Your task to perform on an android device: delete browsing data in the chrome app Image 0: 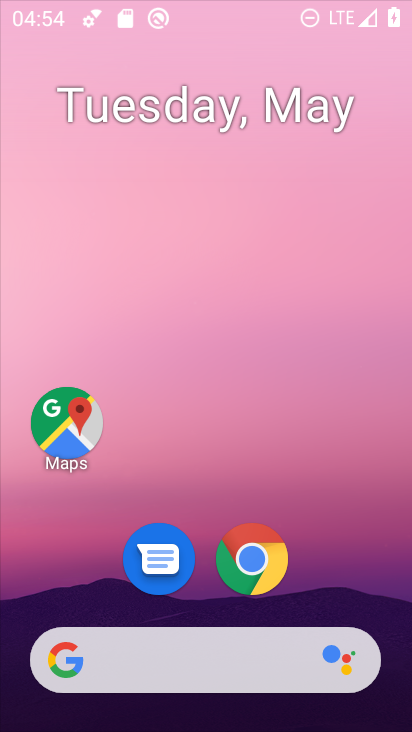
Step 0: drag from (216, 474) to (223, 137)
Your task to perform on an android device: delete browsing data in the chrome app Image 1: 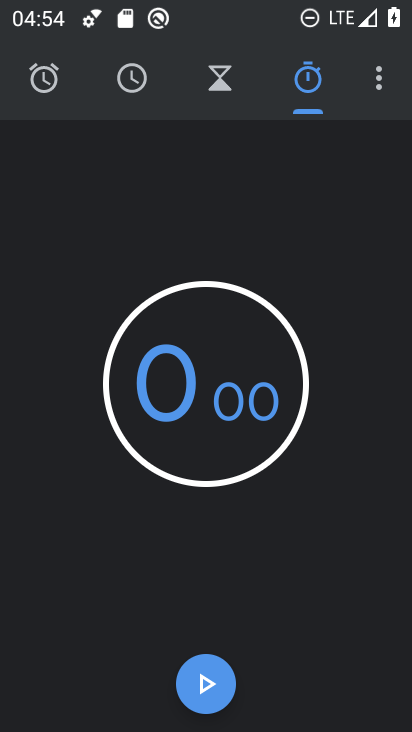
Step 1: press home button
Your task to perform on an android device: delete browsing data in the chrome app Image 2: 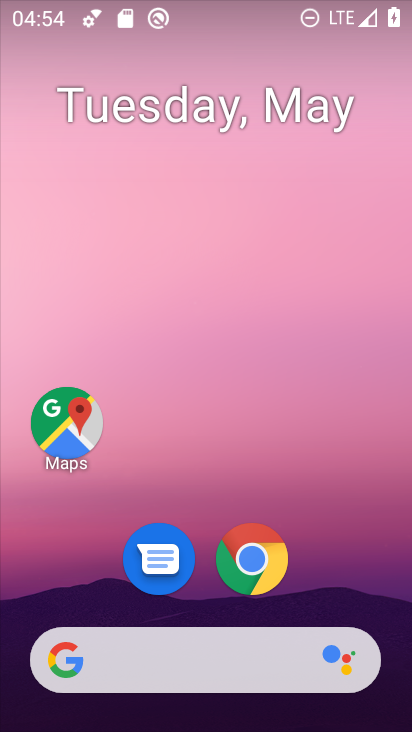
Step 2: click (251, 554)
Your task to perform on an android device: delete browsing data in the chrome app Image 3: 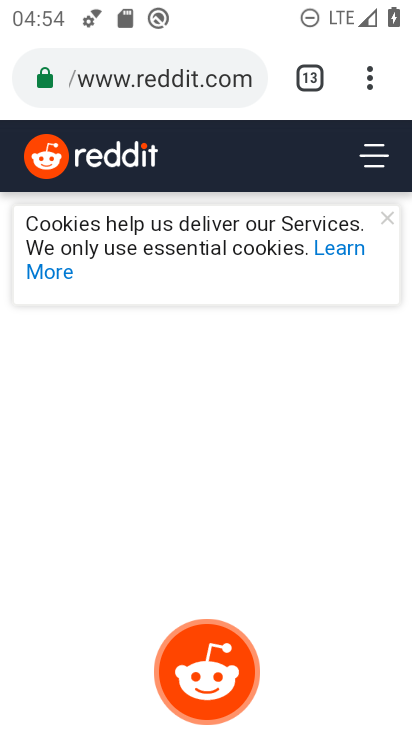
Step 3: click (367, 83)
Your task to perform on an android device: delete browsing data in the chrome app Image 4: 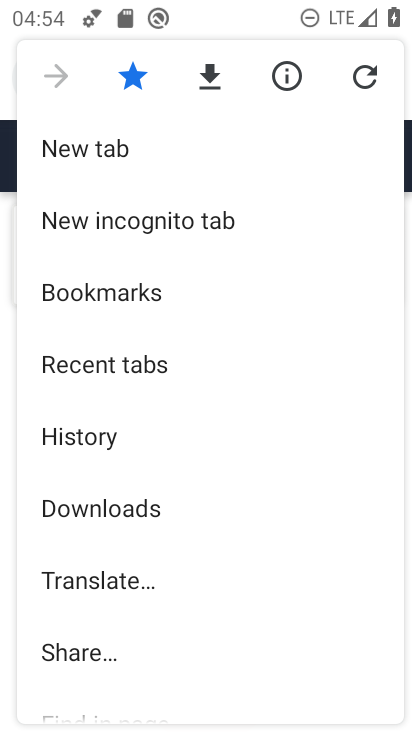
Step 4: click (85, 441)
Your task to perform on an android device: delete browsing data in the chrome app Image 5: 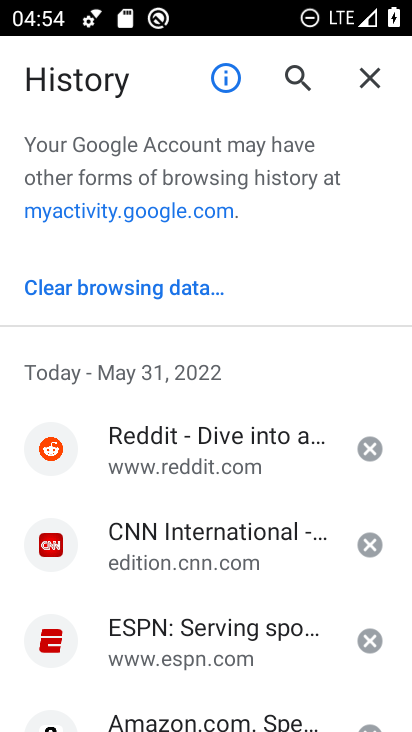
Step 5: click (134, 291)
Your task to perform on an android device: delete browsing data in the chrome app Image 6: 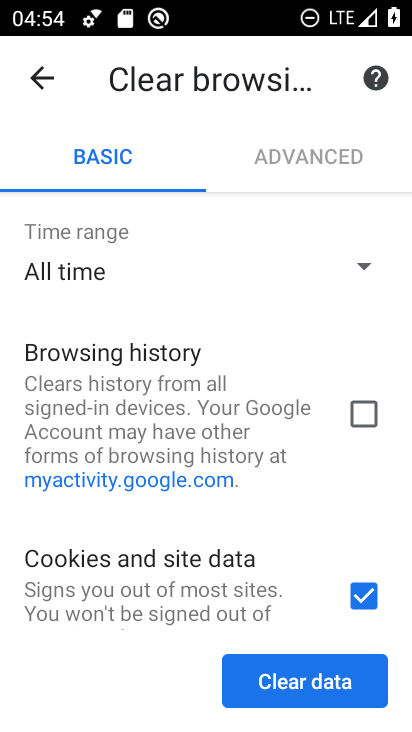
Step 6: click (361, 591)
Your task to perform on an android device: delete browsing data in the chrome app Image 7: 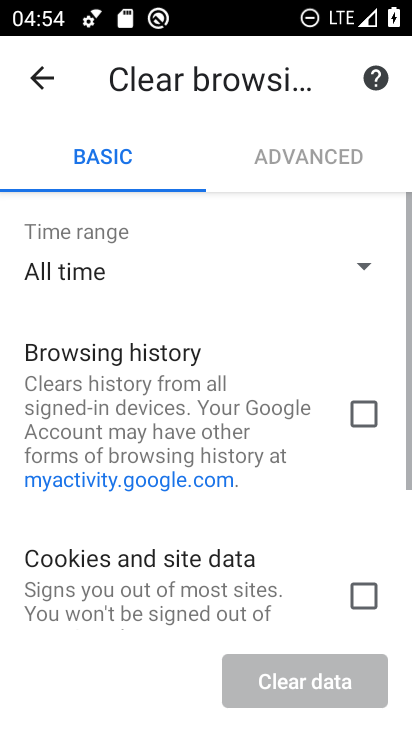
Step 7: drag from (305, 600) to (306, 333)
Your task to perform on an android device: delete browsing data in the chrome app Image 8: 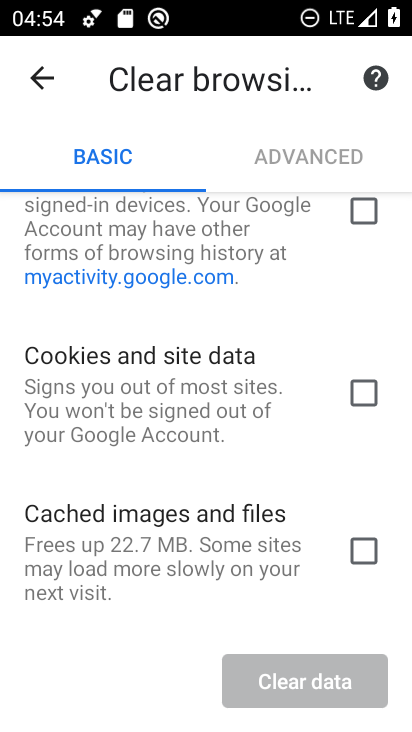
Step 8: click (366, 201)
Your task to perform on an android device: delete browsing data in the chrome app Image 9: 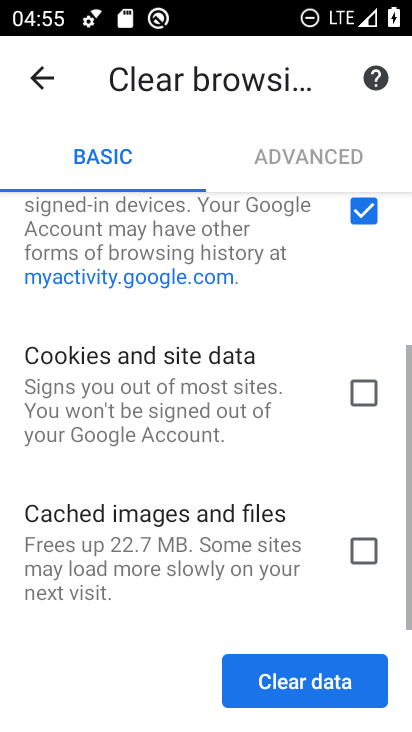
Step 9: drag from (297, 232) to (294, 445)
Your task to perform on an android device: delete browsing data in the chrome app Image 10: 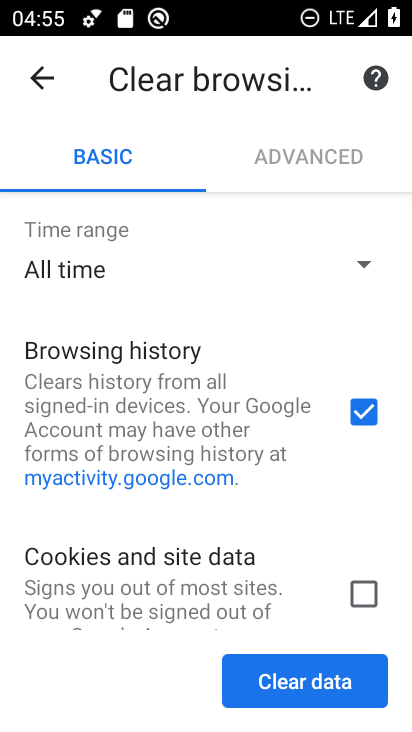
Step 10: click (277, 675)
Your task to perform on an android device: delete browsing data in the chrome app Image 11: 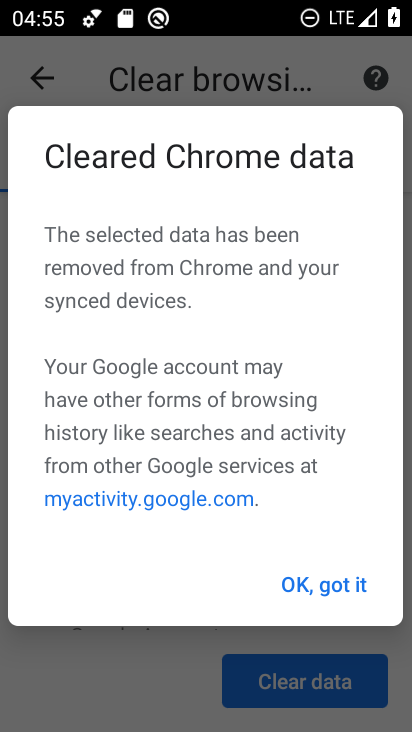
Step 11: click (335, 583)
Your task to perform on an android device: delete browsing data in the chrome app Image 12: 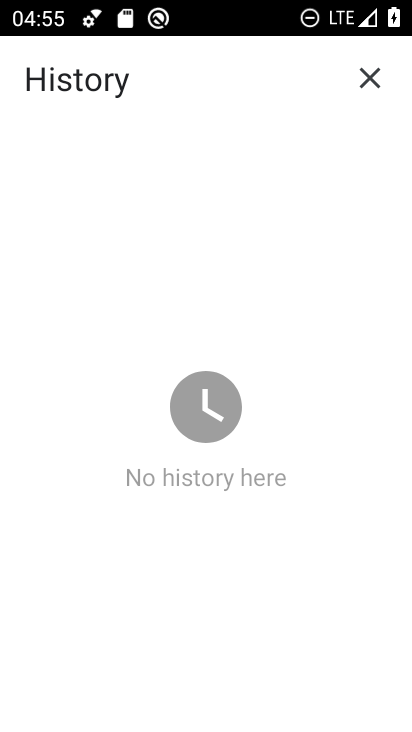
Step 12: task complete